Your task to perform on an android device: turn pop-ups on in chrome Image 0: 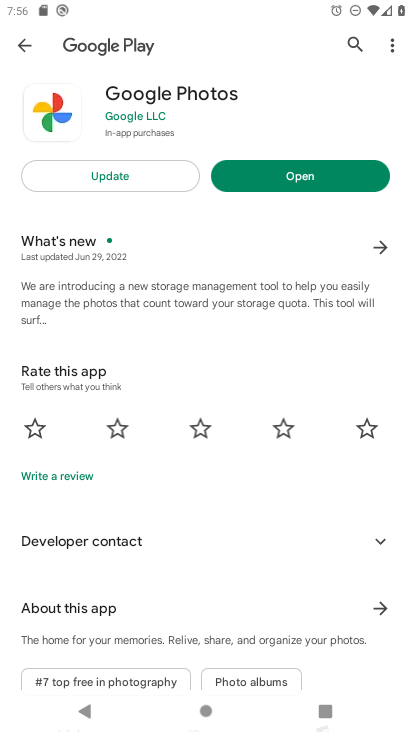
Step 0: press home button
Your task to perform on an android device: turn pop-ups on in chrome Image 1: 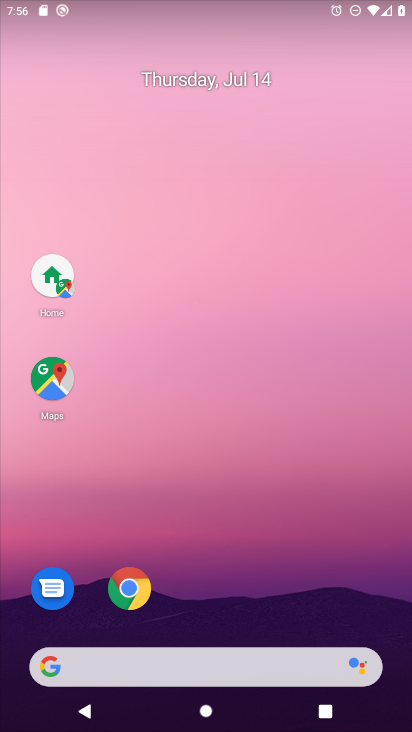
Step 1: click (146, 555)
Your task to perform on an android device: turn pop-ups on in chrome Image 2: 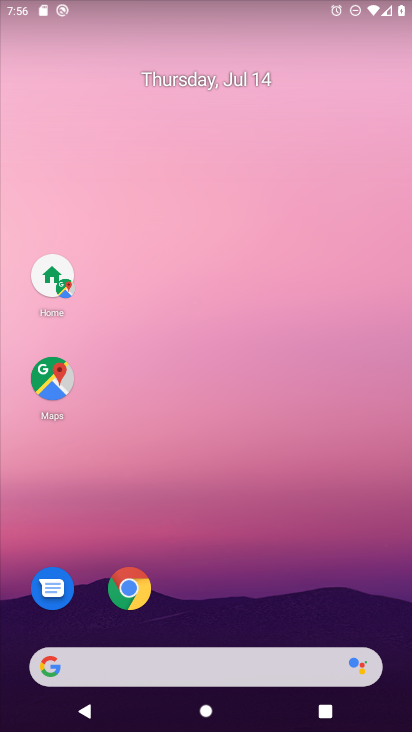
Step 2: click (137, 586)
Your task to perform on an android device: turn pop-ups on in chrome Image 3: 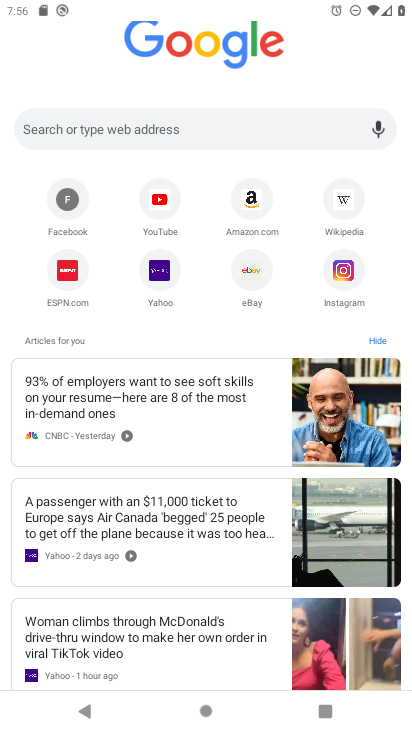
Step 3: task complete